Your task to perform on an android device: toggle show notifications on the lock screen Image 0: 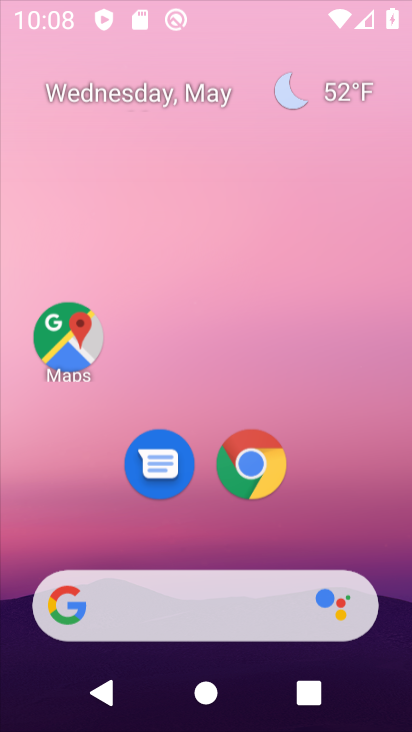
Step 0: click (197, 103)
Your task to perform on an android device: toggle show notifications on the lock screen Image 1: 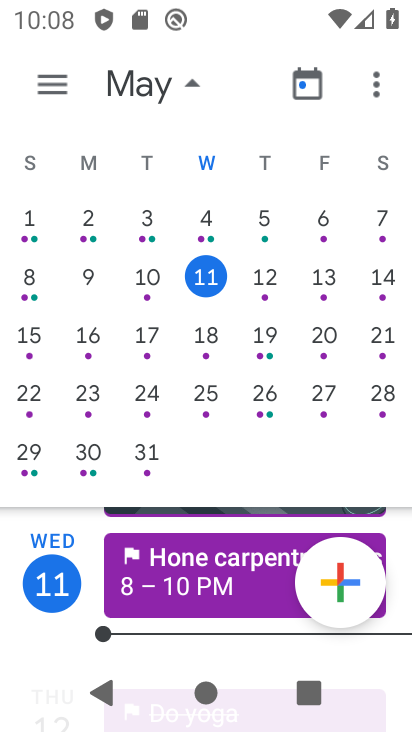
Step 1: press home button
Your task to perform on an android device: toggle show notifications on the lock screen Image 2: 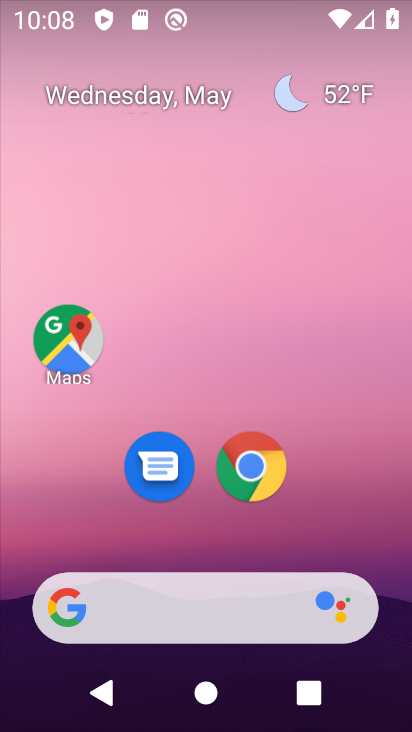
Step 2: drag from (197, 543) to (192, 141)
Your task to perform on an android device: toggle show notifications on the lock screen Image 3: 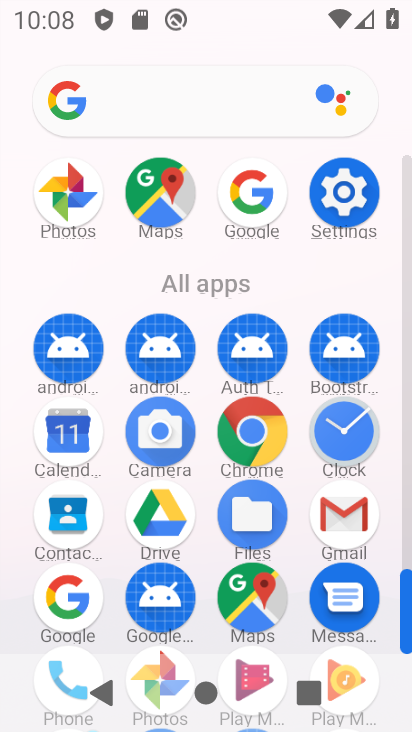
Step 3: click (337, 191)
Your task to perform on an android device: toggle show notifications on the lock screen Image 4: 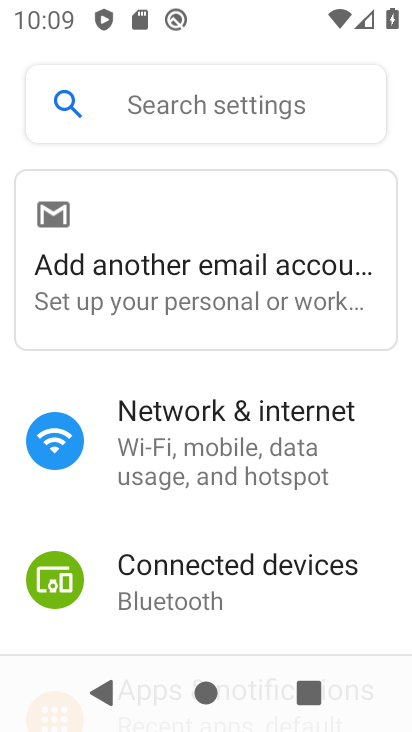
Step 4: drag from (264, 583) to (287, 224)
Your task to perform on an android device: toggle show notifications on the lock screen Image 5: 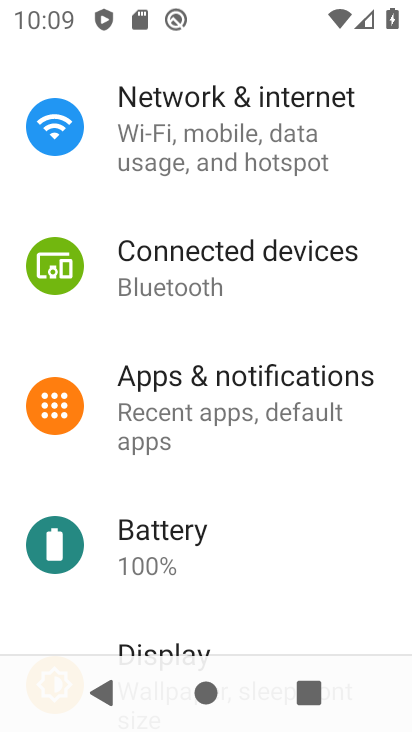
Step 5: click (185, 418)
Your task to perform on an android device: toggle show notifications on the lock screen Image 6: 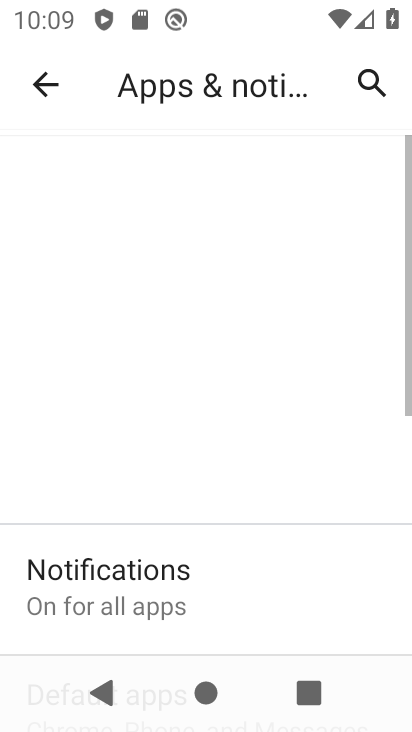
Step 6: drag from (183, 605) to (186, 442)
Your task to perform on an android device: toggle show notifications on the lock screen Image 7: 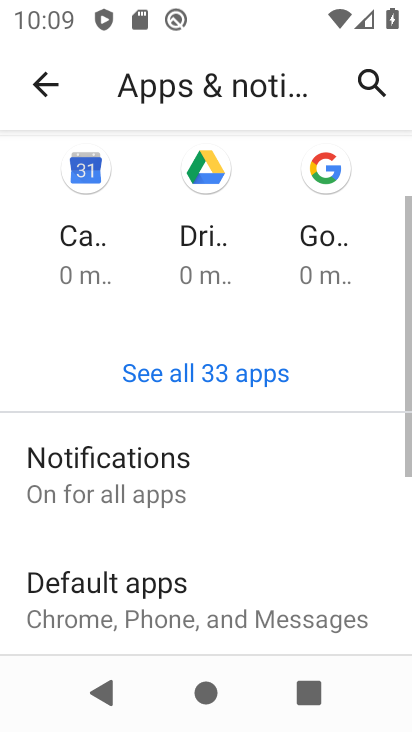
Step 7: click (158, 481)
Your task to perform on an android device: toggle show notifications on the lock screen Image 8: 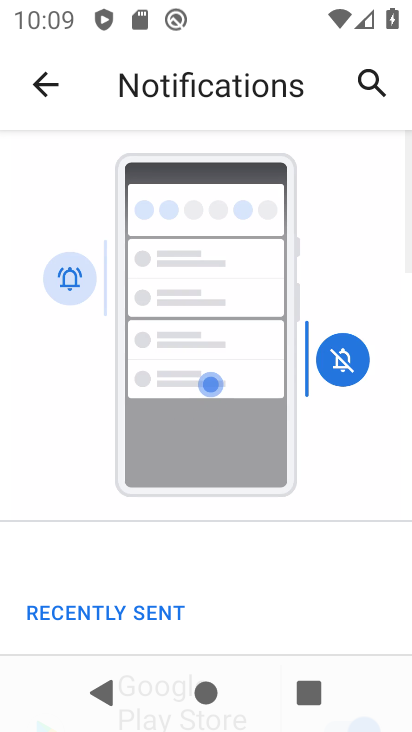
Step 8: drag from (265, 576) to (277, 99)
Your task to perform on an android device: toggle show notifications on the lock screen Image 9: 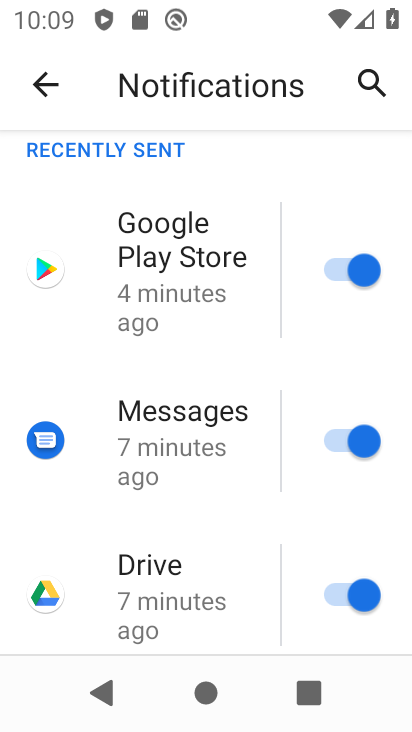
Step 9: drag from (247, 535) to (256, 27)
Your task to perform on an android device: toggle show notifications on the lock screen Image 10: 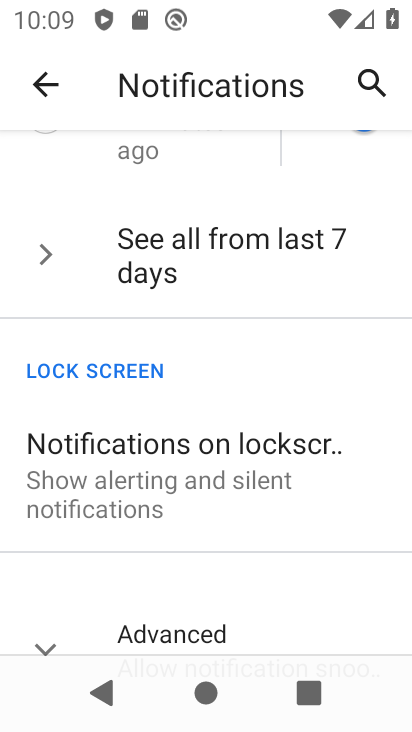
Step 10: click (222, 489)
Your task to perform on an android device: toggle show notifications on the lock screen Image 11: 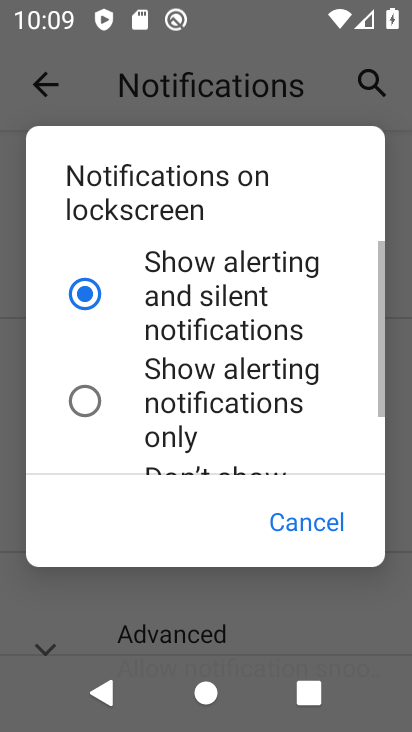
Step 11: drag from (172, 392) to (173, 210)
Your task to perform on an android device: toggle show notifications on the lock screen Image 12: 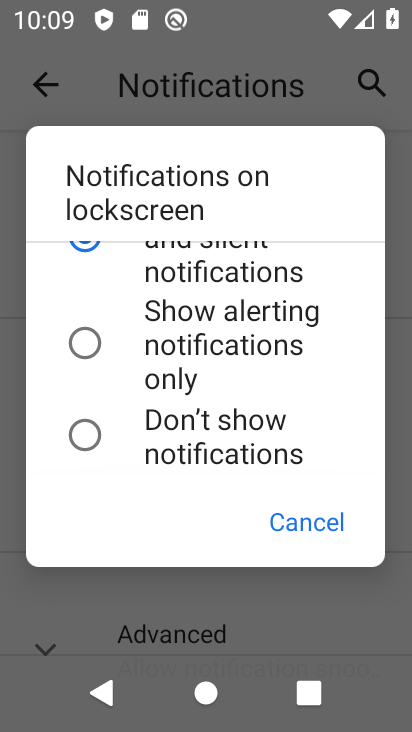
Step 12: drag from (75, 445) to (39, 425)
Your task to perform on an android device: toggle show notifications on the lock screen Image 13: 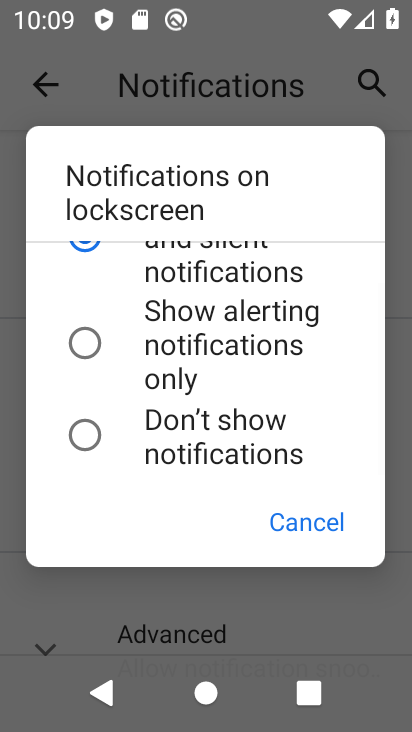
Step 13: click (98, 436)
Your task to perform on an android device: toggle show notifications on the lock screen Image 14: 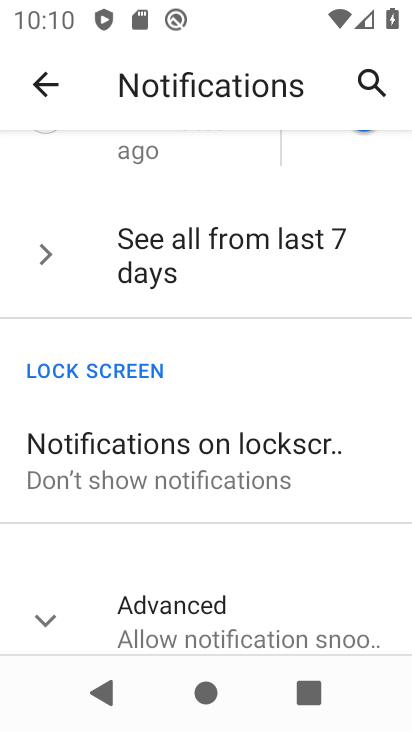
Step 14: task complete